Your task to perform on an android device: open app "Spotify" (install if not already installed), go to login, and select forgot password Image 0: 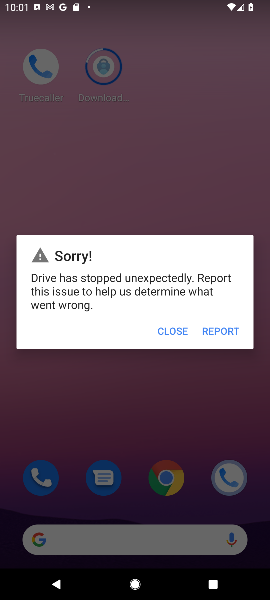
Step 0: press home button
Your task to perform on an android device: open app "Spotify" (install if not already installed), go to login, and select forgot password Image 1: 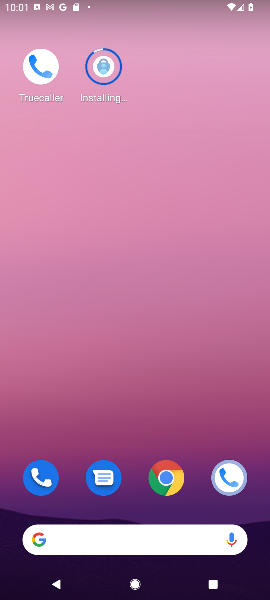
Step 1: drag from (141, 503) to (166, 111)
Your task to perform on an android device: open app "Spotify" (install if not already installed), go to login, and select forgot password Image 2: 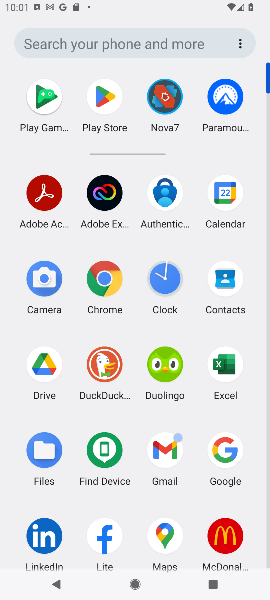
Step 2: click (116, 126)
Your task to perform on an android device: open app "Spotify" (install if not already installed), go to login, and select forgot password Image 3: 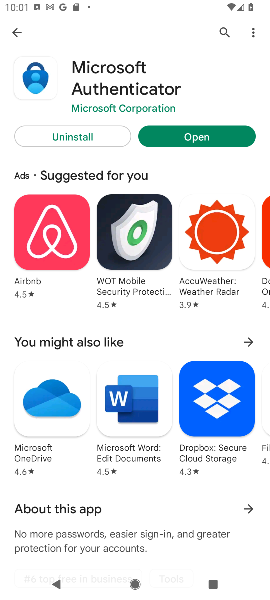
Step 3: click (223, 37)
Your task to perform on an android device: open app "Spotify" (install if not already installed), go to login, and select forgot password Image 4: 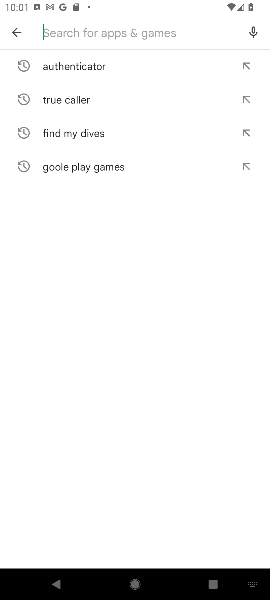
Step 4: type "spotify"
Your task to perform on an android device: open app "Spotify" (install if not already installed), go to login, and select forgot password Image 5: 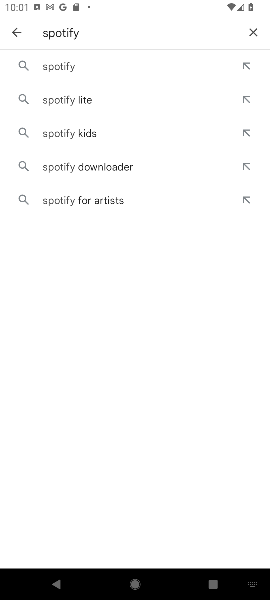
Step 5: click (128, 54)
Your task to perform on an android device: open app "Spotify" (install if not already installed), go to login, and select forgot password Image 6: 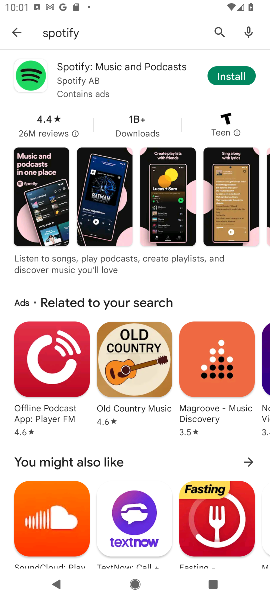
Step 6: click (214, 85)
Your task to perform on an android device: open app "Spotify" (install if not already installed), go to login, and select forgot password Image 7: 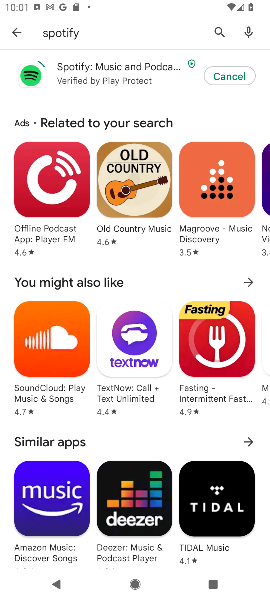
Step 7: task complete